Your task to perform on an android device: Search for Italian restaurants on Maps Image 0: 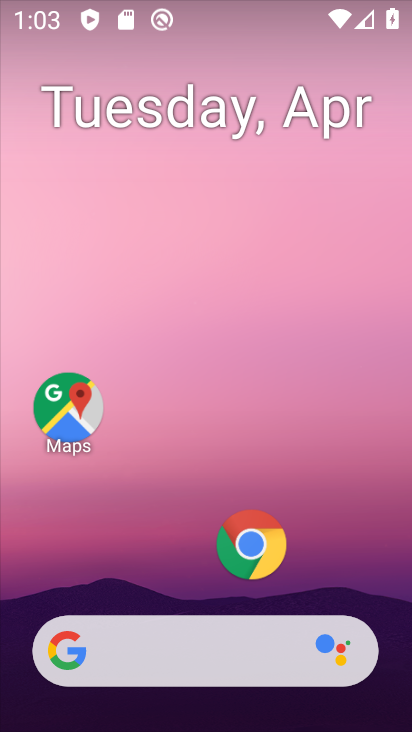
Step 0: drag from (185, 463) to (222, 201)
Your task to perform on an android device: Search for Italian restaurants on Maps Image 1: 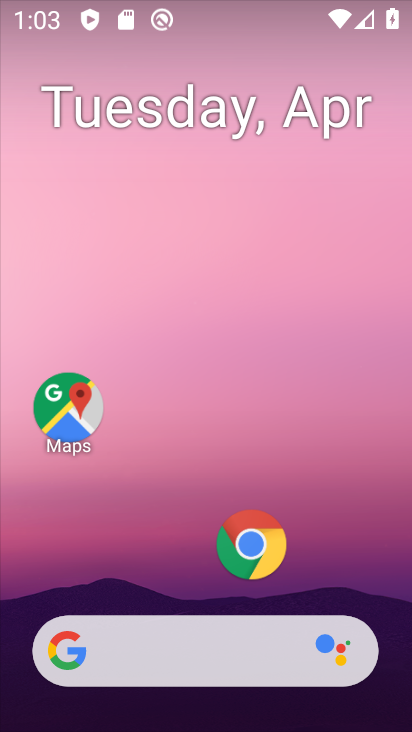
Step 1: drag from (169, 515) to (215, 257)
Your task to perform on an android device: Search for Italian restaurants on Maps Image 2: 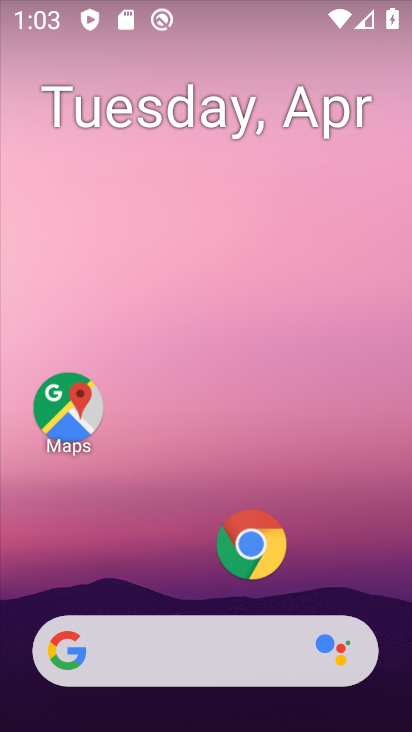
Step 2: drag from (176, 578) to (245, 236)
Your task to perform on an android device: Search for Italian restaurants on Maps Image 3: 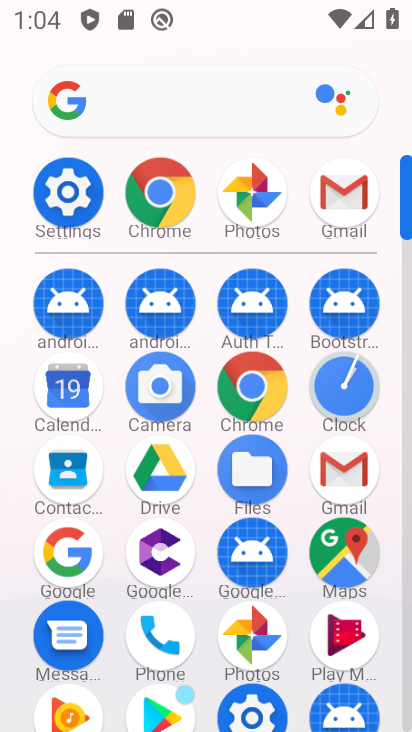
Step 3: click (345, 541)
Your task to perform on an android device: Search for Italian restaurants on Maps Image 4: 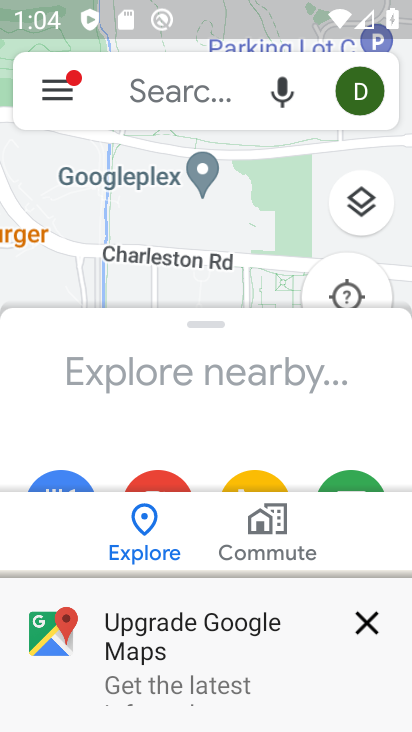
Step 4: click (344, 541)
Your task to perform on an android device: Search for Italian restaurants on Maps Image 5: 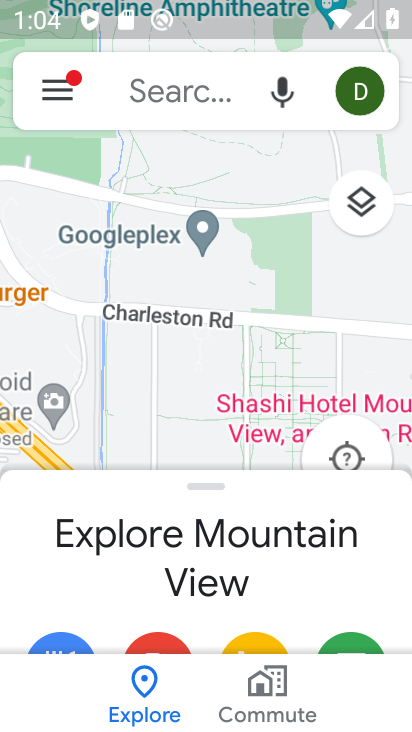
Step 5: click (144, 86)
Your task to perform on an android device: Search for Italian restaurants on Maps Image 6: 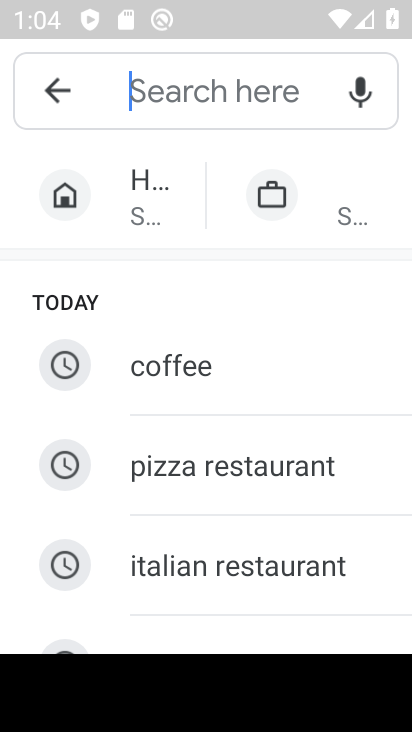
Step 6: click (230, 97)
Your task to perform on an android device: Search for Italian restaurants on Maps Image 7: 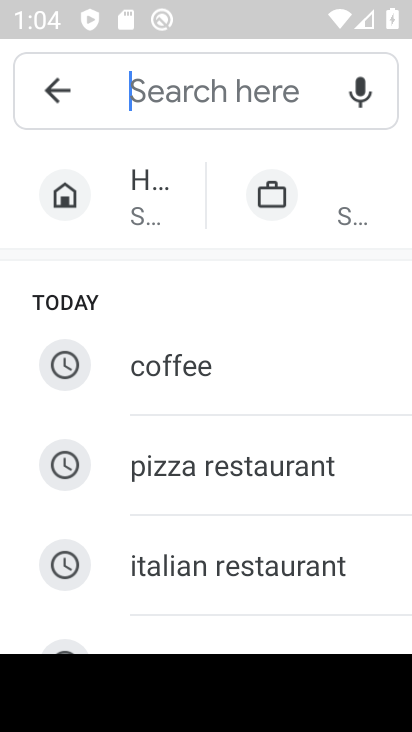
Step 7: type "Italian restaurants"
Your task to perform on an android device: Search for Italian restaurants on Maps Image 8: 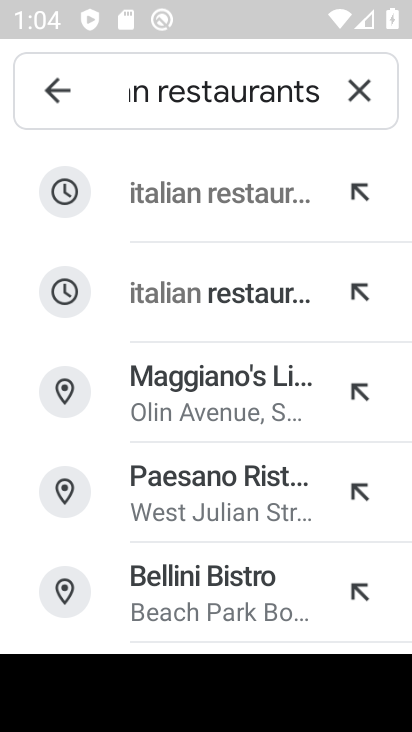
Step 8: click (206, 193)
Your task to perform on an android device: Search for Italian restaurants on Maps Image 9: 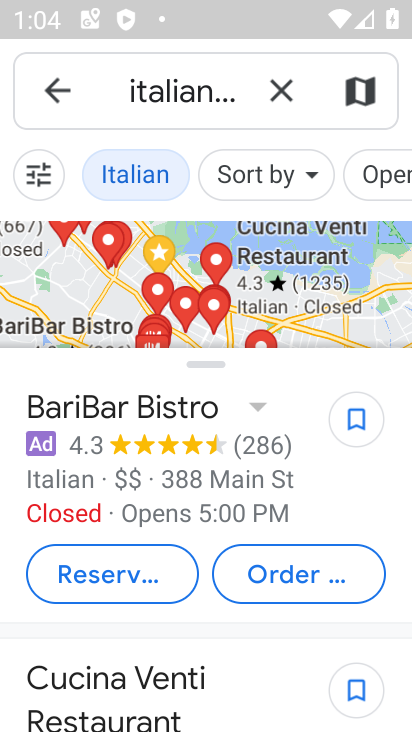
Step 9: click (235, 420)
Your task to perform on an android device: Search for Italian restaurants on Maps Image 10: 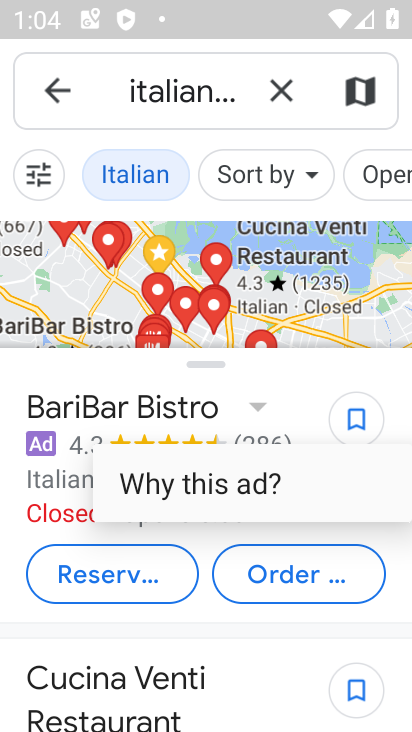
Step 10: task complete